Your task to perform on an android device: Go to accessibility settings Image 0: 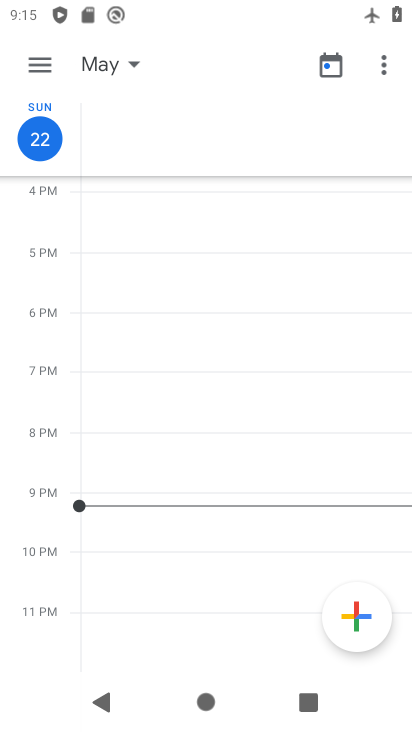
Step 0: press home button
Your task to perform on an android device: Go to accessibility settings Image 1: 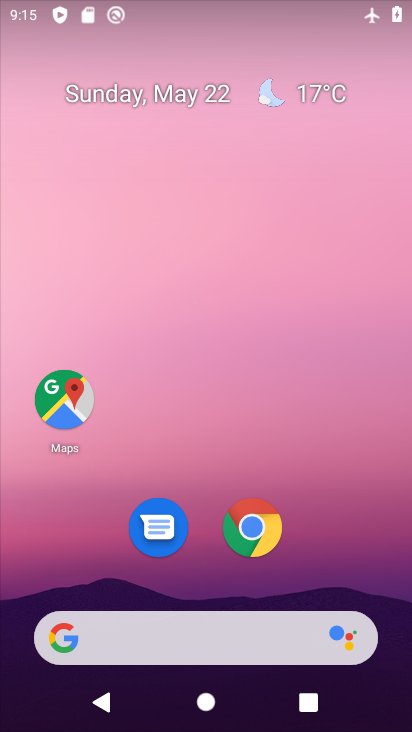
Step 1: drag from (317, 529) to (214, 3)
Your task to perform on an android device: Go to accessibility settings Image 2: 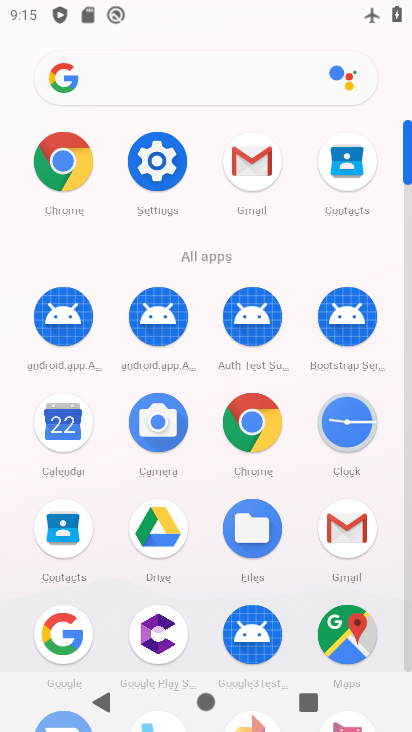
Step 2: click (159, 157)
Your task to perform on an android device: Go to accessibility settings Image 3: 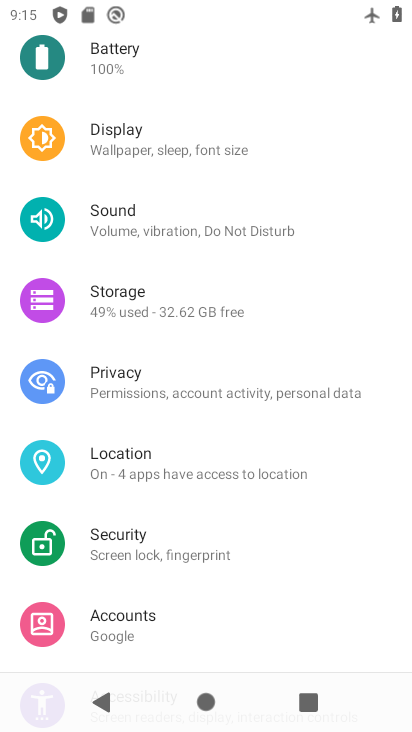
Step 3: drag from (288, 577) to (200, 83)
Your task to perform on an android device: Go to accessibility settings Image 4: 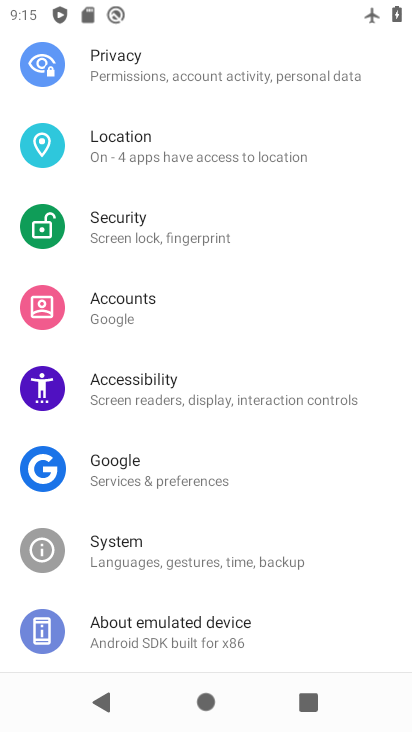
Step 4: click (136, 378)
Your task to perform on an android device: Go to accessibility settings Image 5: 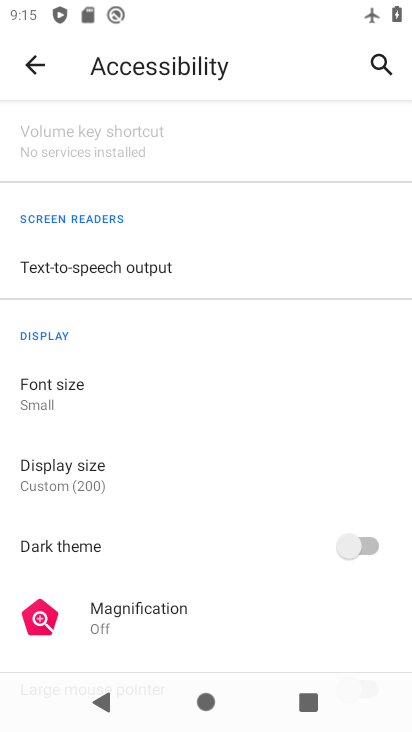
Step 5: task complete